Your task to perform on an android device: turn off priority inbox in the gmail app Image 0: 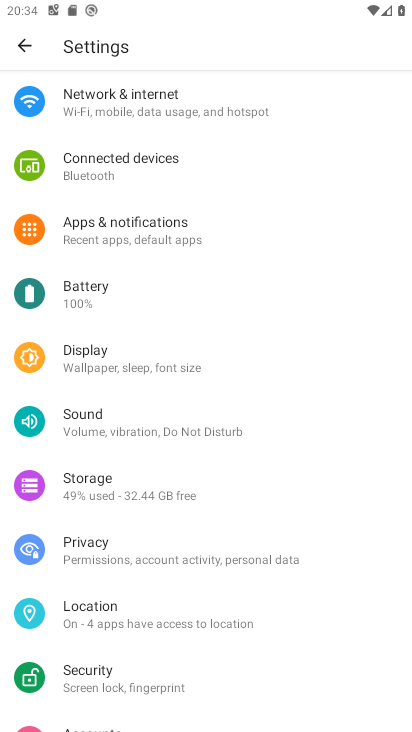
Step 0: press home button
Your task to perform on an android device: turn off priority inbox in the gmail app Image 1: 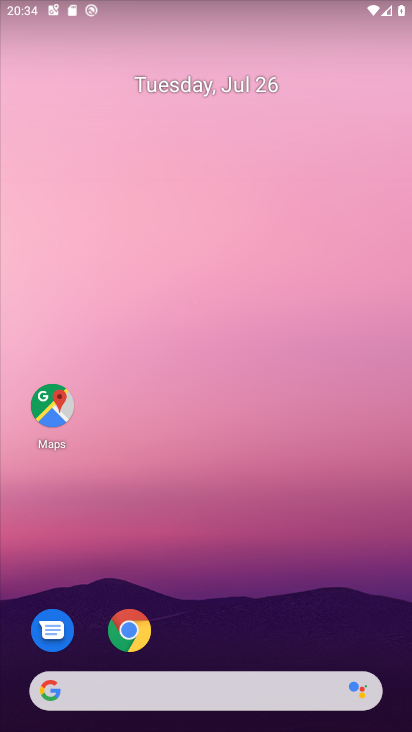
Step 1: drag from (398, 675) to (350, 52)
Your task to perform on an android device: turn off priority inbox in the gmail app Image 2: 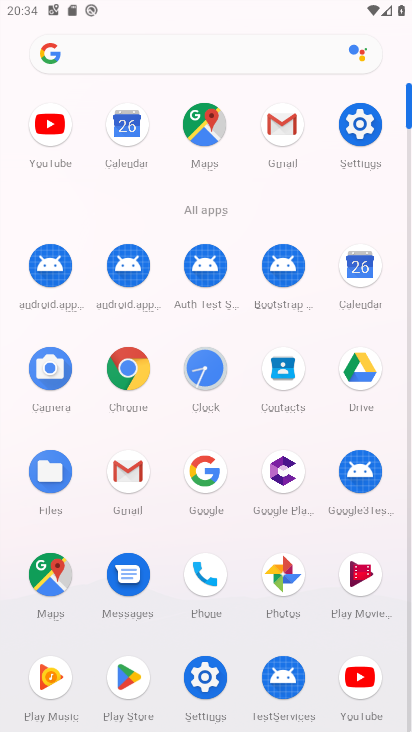
Step 2: click (128, 487)
Your task to perform on an android device: turn off priority inbox in the gmail app Image 3: 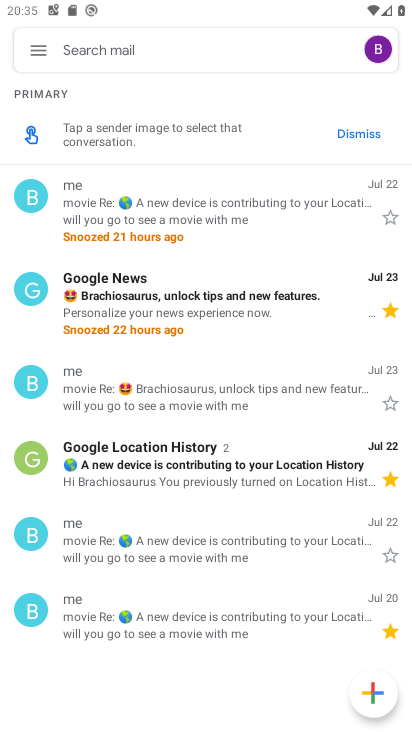
Step 3: click (33, 49)
Your task to perform on an android device: turn off priority inbox in the gmail app Image 4: 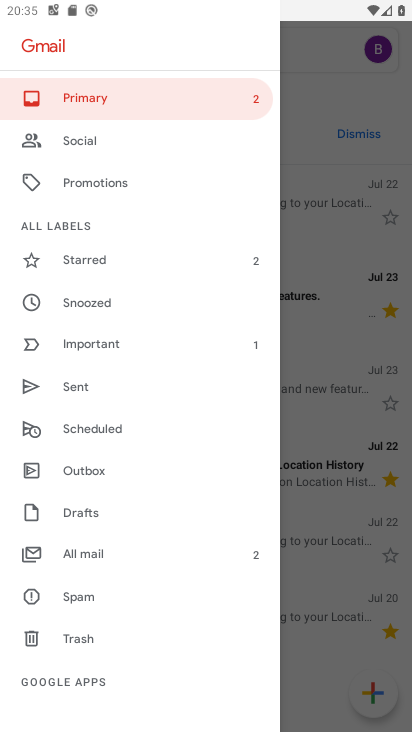
Step 4: drag from (178, 549) to (151, 325)
Your task to perform on an android device: turn off priority inbox in the gmail app Image 5: 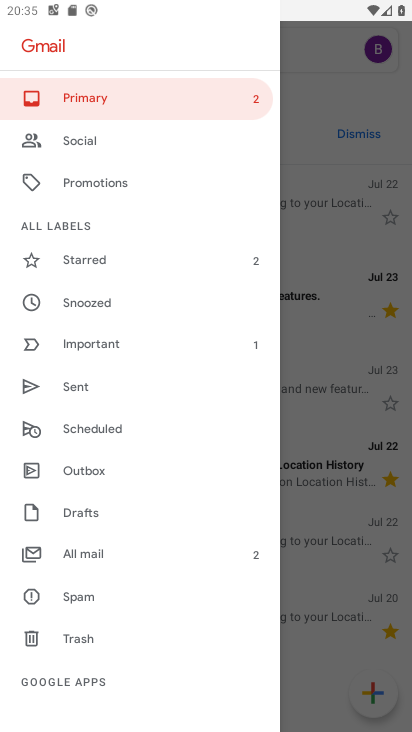
Step 5: drag from (194, 556) to (179, 239)
Your task to perform on an android device: turn off priority inbox in the gmail app Image 6: 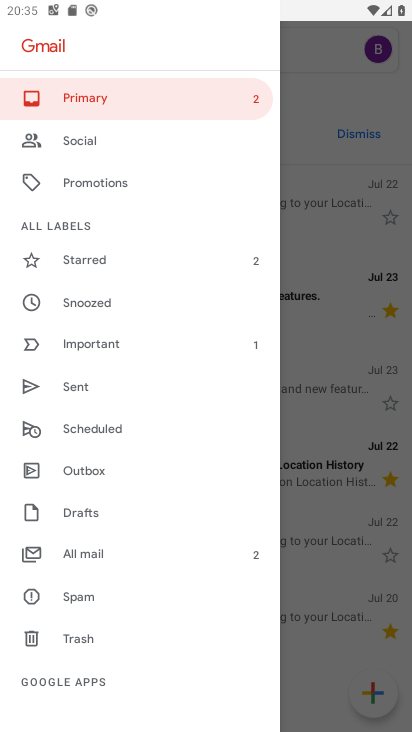
Step 6: drag from (164, 622) to (188, 339)
Your task to perform on an android device: turn off priority inbox in the gmail app Image 7: 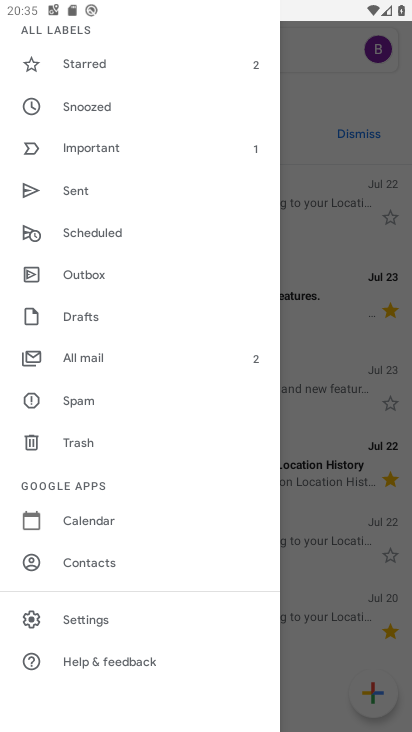
Step 7: click (69, 616)
Your task to perform on an android device: turn off priority inbox in the gmail app Image 8: 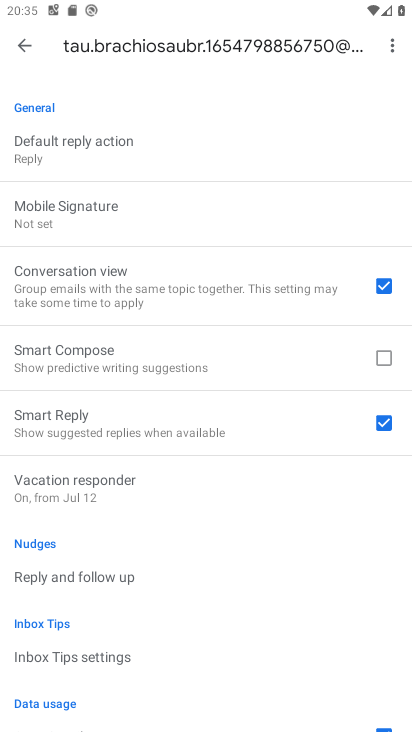
Step 8: drag from (204, 136) to (242, 395)
Your task to perform on an android device: turn off priority inbox in the gmail app Image 9: 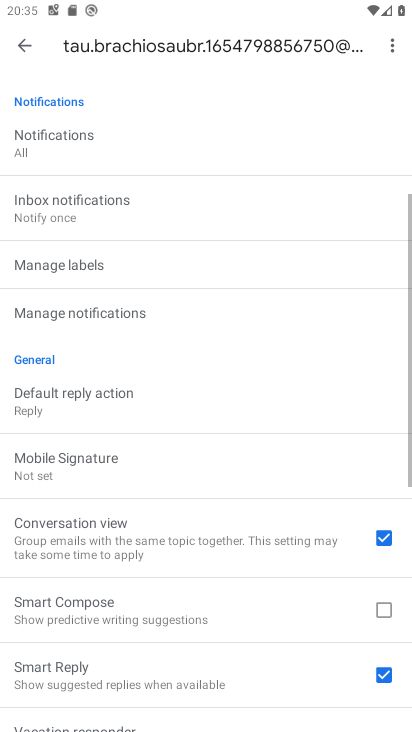
Step 9: click (25, 45)
Your task to perform on an android device: turn off priority inbox in the gmail app Image 10: 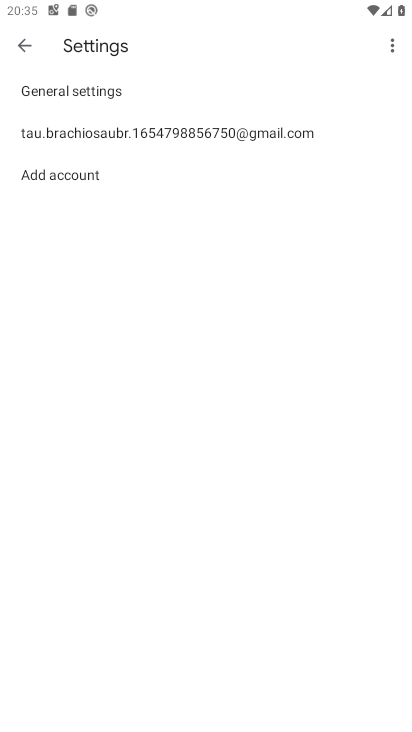
Step 10: click (87, 132)
Your task to perform on an android device: turn off priority inbox in the gmail app Image 11: 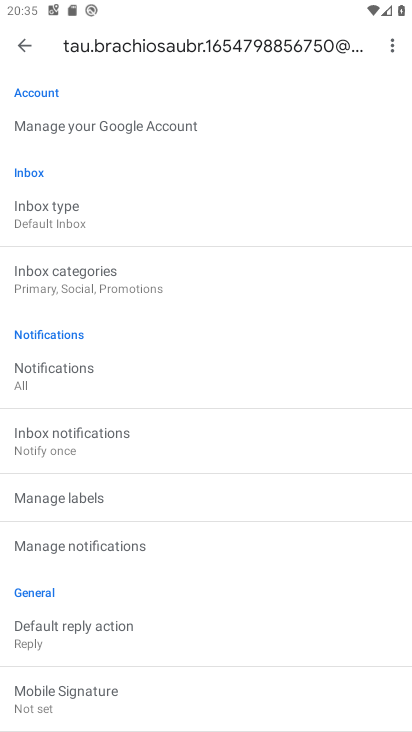
Step 11: click (43, 210)
Your task to perform on an android device: turn off priority inbox in the gmail app Image 12: 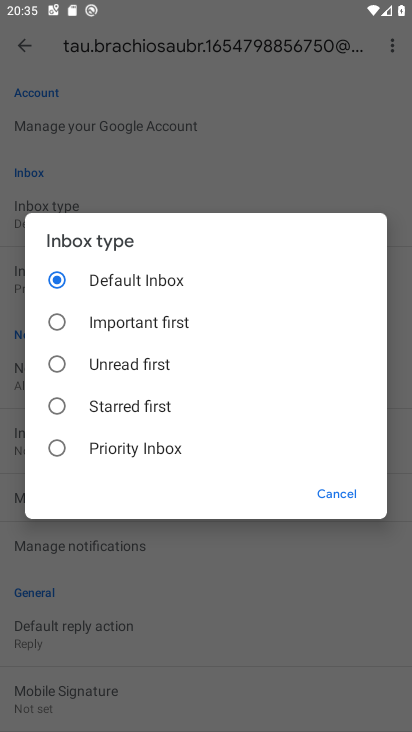
Step 12: task complete